Your task to perform on an android device: change the upload size in google photos Image 0: 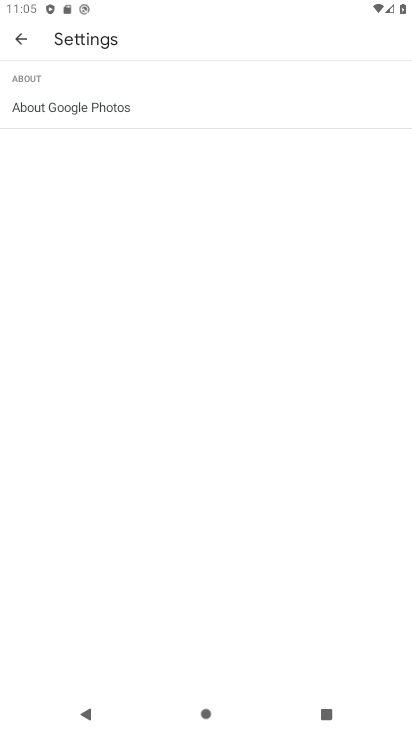
Step 0: press home button
Your task to perform on an android device: change the upload size in google photos Image 1: 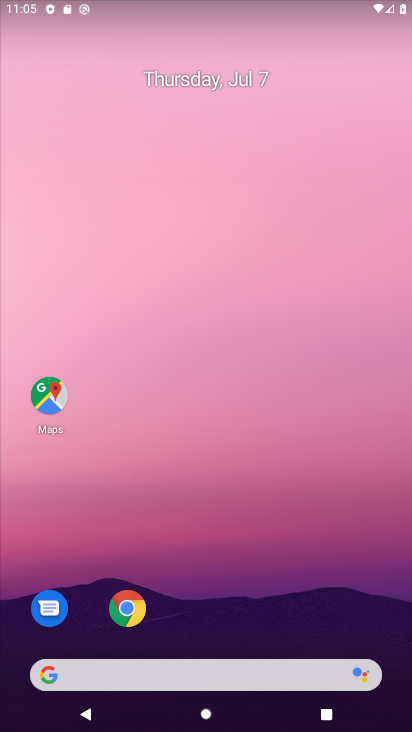
Step 1: drag from (222, 628) to (205, 107)
Your task to perform on an android device: change the upload size in google photos Image 2: 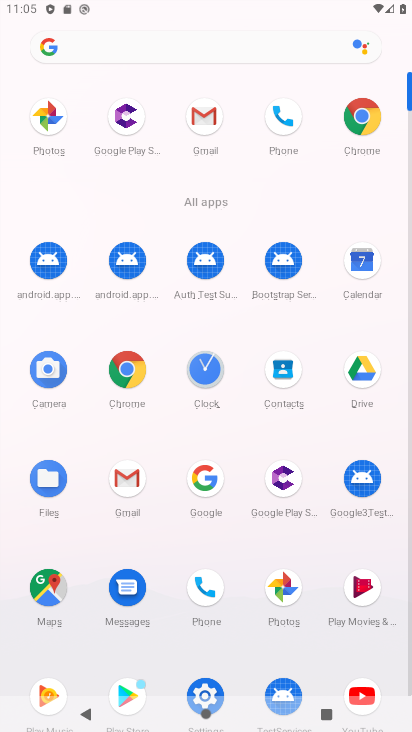
Step 2: click (42, 120)
Your task to perform on an android device: change the upload size in google photos Image 3: 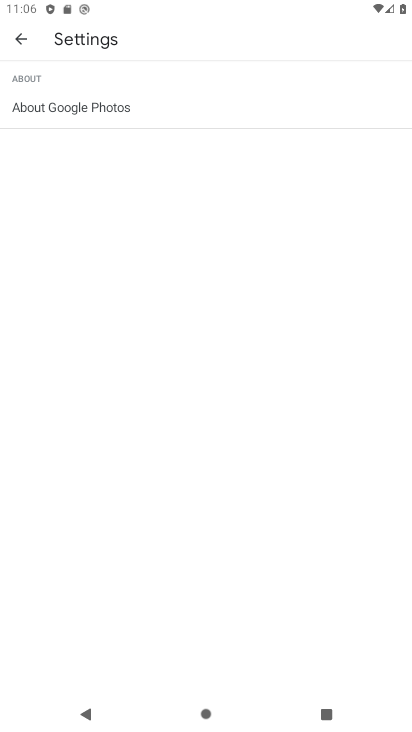
Step 3: click (20, 44)
Your task to perform on an android device: change the upload size in google photos Image 4: 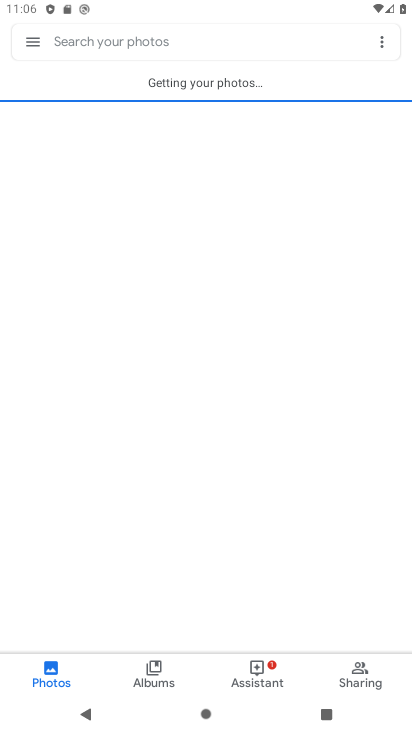
Step 4: click (20, 44)
Your task to perform on an android device: change the upload size in google photos Image 5: 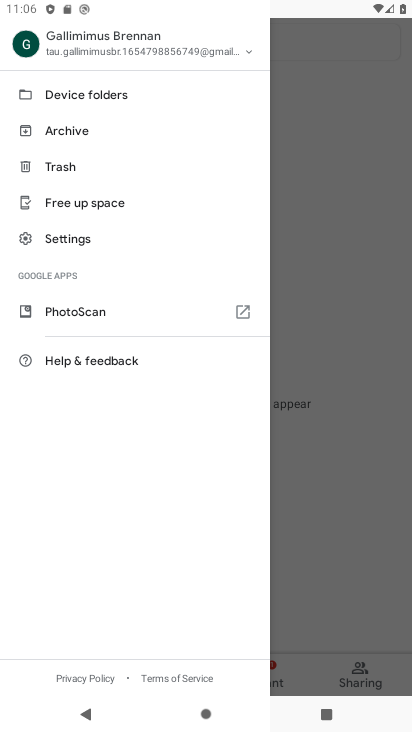
Step 5: click (100, 248)
Your task to perform on an android device: change the upload size in google photos Image 6: 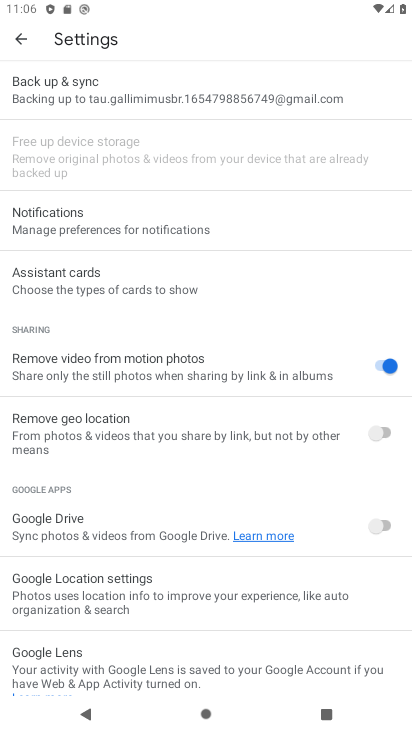
Step 6: task complete